Your task to perform on an android device: set the stopwatch Image 0: 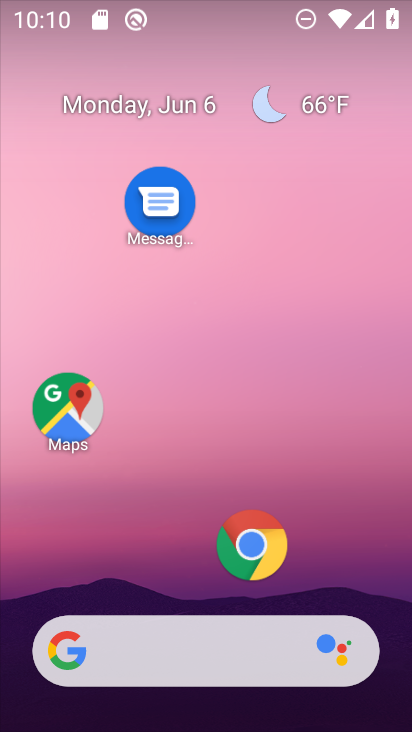
Step 0: drag from (175, 601) to (283, 1)
Your task to perform on an android device: set the stopwatch Image 1: 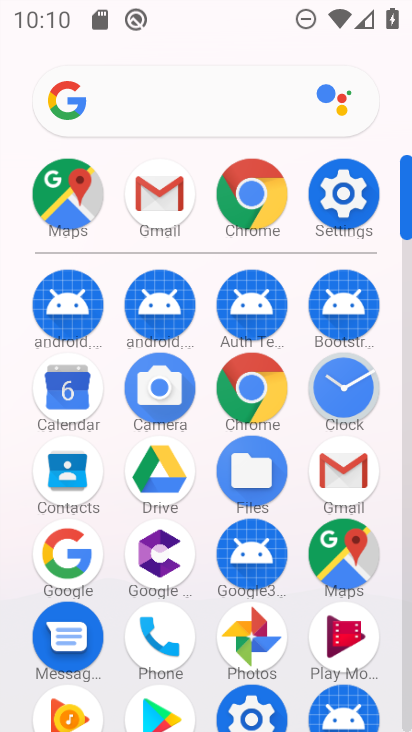
Step 1: click (344, 389)
Your task to perform on an android device: set the stopwatch Image 2: 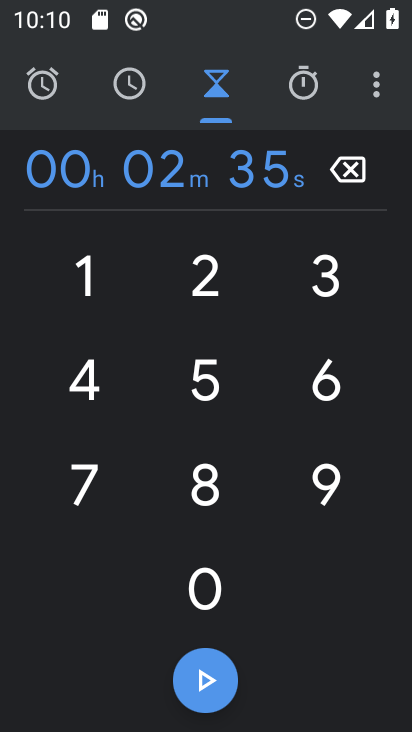
Step 2: click (314, 92)
Your task to perform on an android device: set the stopwatch Image 3: 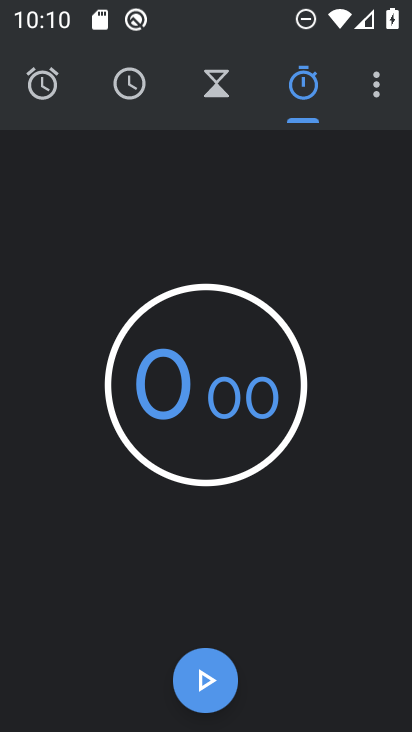
Step 3: task complete